Your task to perform on an android device: Go to Yahoo.com Image 0: 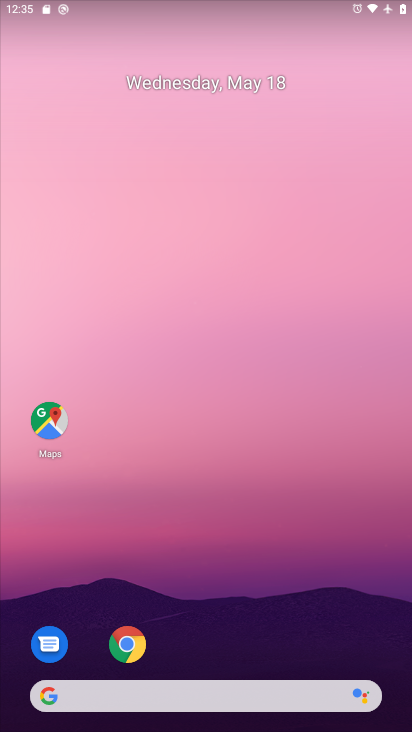
Step 0: press home button
Your task to perform on an android device: Go to Yahoo.com Image 1: 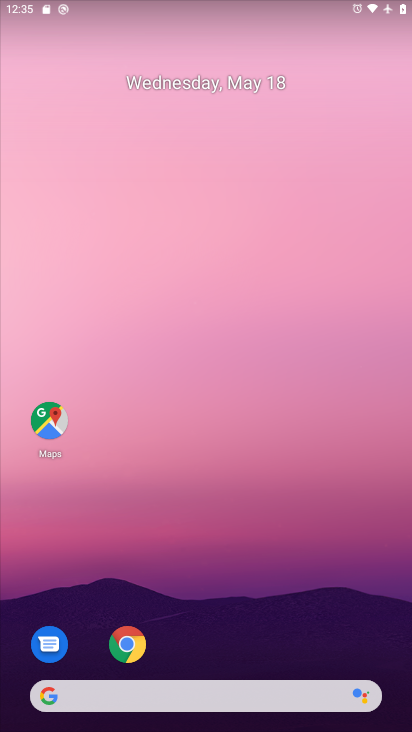
Step 1: click (126, 644)
Your task to perform on an android device: Go to Yahoo.com Image 2: 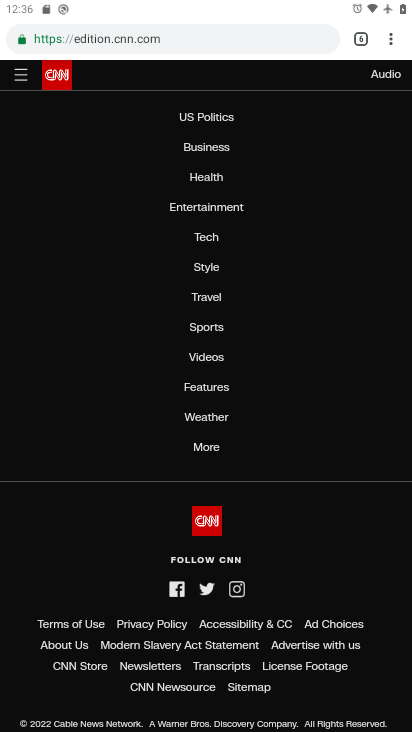
Step 2: click (359, 44)
Your task to perform on an android device: Go to Yahoo.com Image 3: 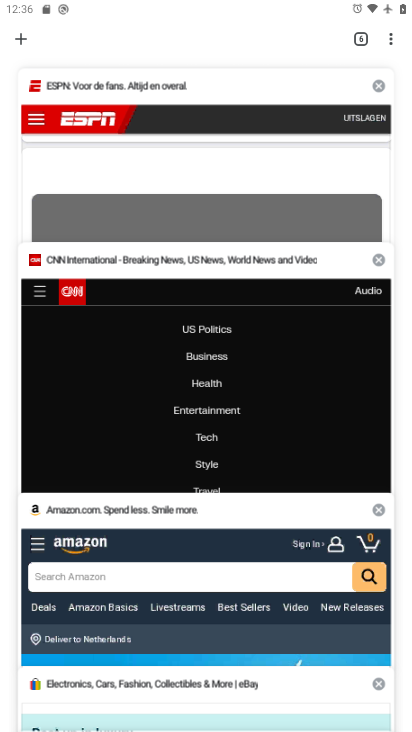
Step 3: drag from (154, 357) to (213, 0)
Your task to perform on an android device: Go to Yahoo.com Image 4: 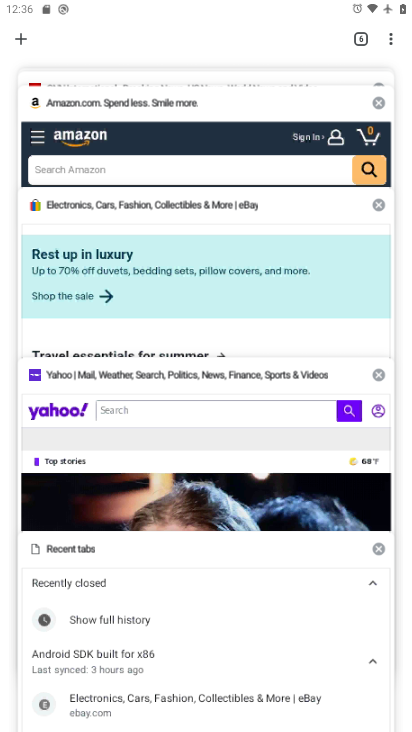
Step 4: click (128, 467)
Your task to perform on an android device: Go to Yahoo.com Image 5: 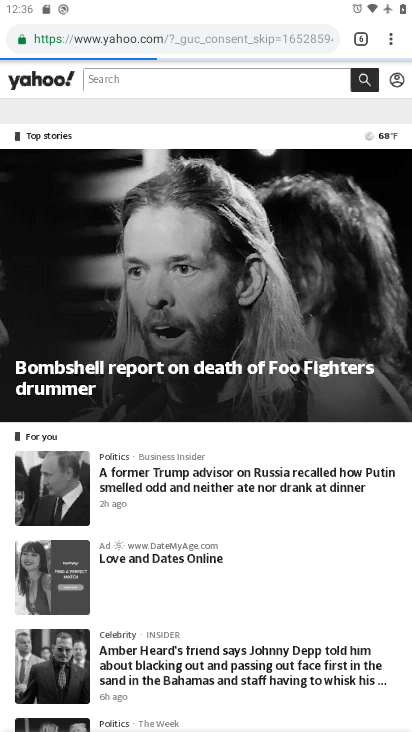
Step 5: task complete